Your task to perform on an android device: Open Chrome and go to the settings page Image 0: 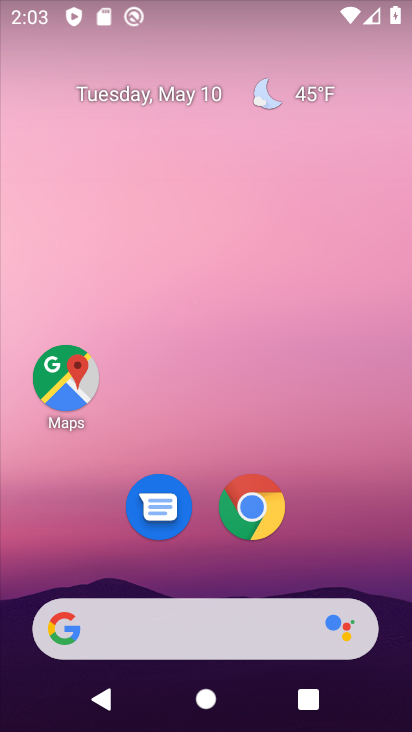
Step 0: click (265, 512)
Your task to perform on an android device: Open Chrome and go to the settings page Image 1: 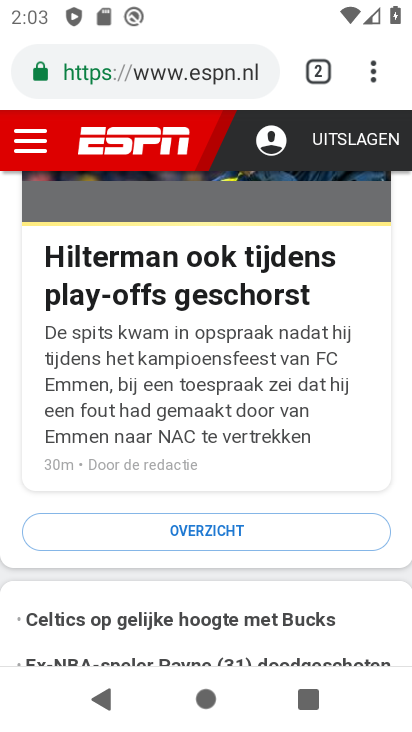
Step 1: task complete